Your task to perform on an android device: Empty the shopping cart on newegg.com. Add macbook pro to the cart on newegg.com Image 0: 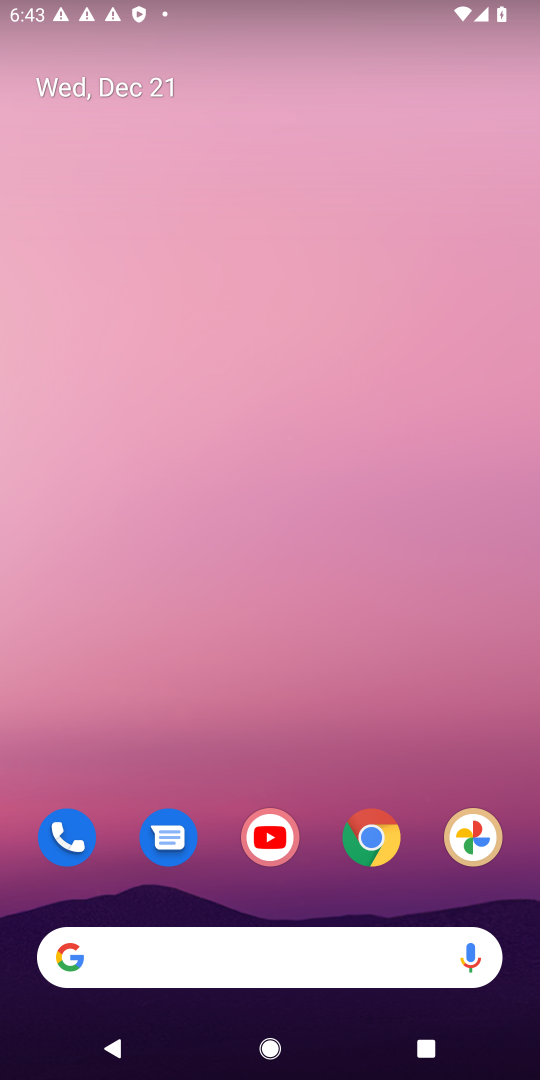
Step 0: drag from (276, 651) to (273, 232)
Your task to perform on an android device: Empty the shopping cart on newegg.com. Add macbook pro to the cart on newegg.com Image 1: 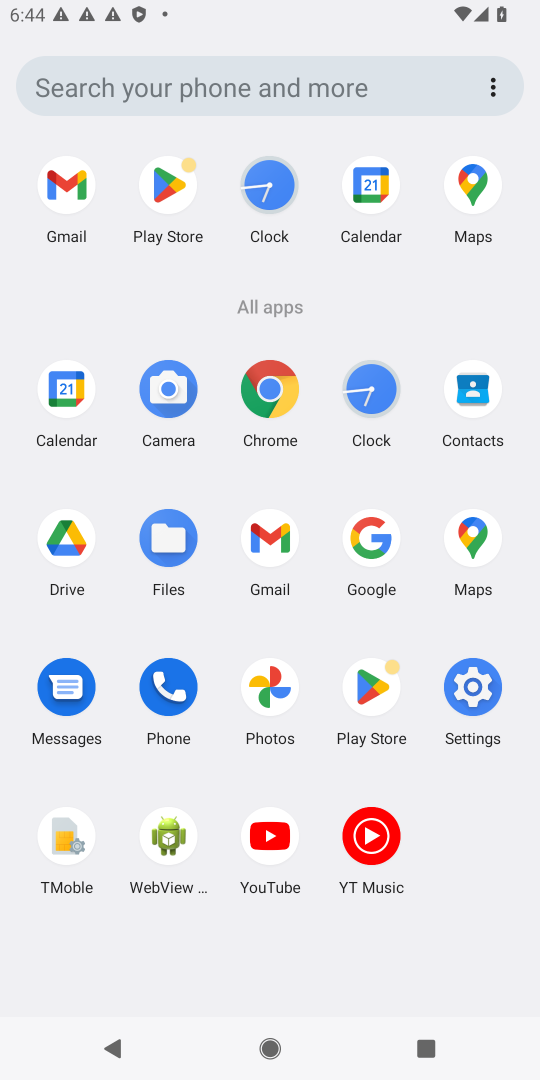
Step 1: click (385, 516)
Your task to perform on an android device: Empty the shopping cart on newegg.com. Add macbook pro to the cart on newegg.com Image 2: 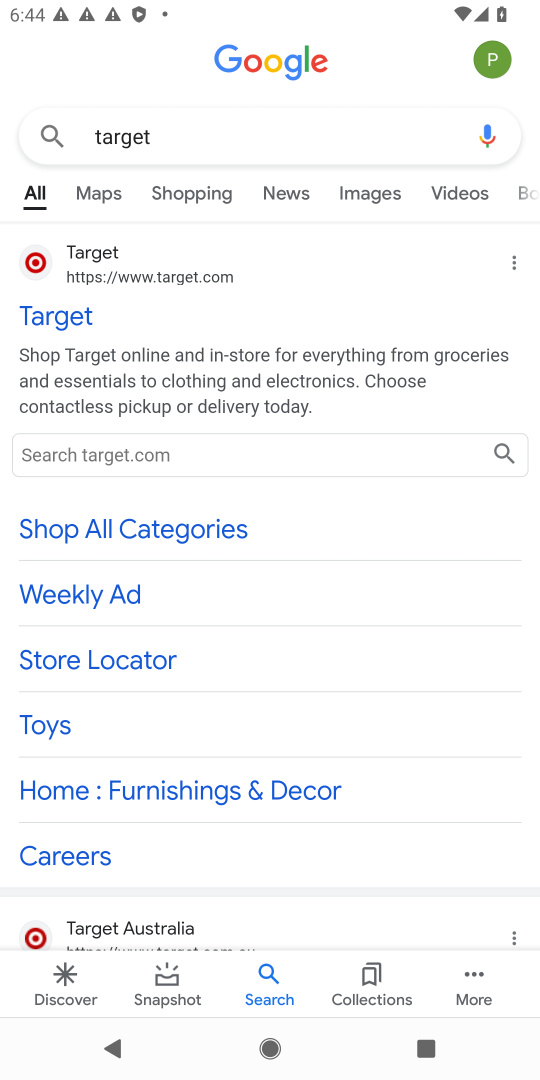
Step 2: click (101, 139)
Your task to perform on an android device: Empty the shopping cart on newegg.com. Add macbook pro to the cart on newegg.com Image 3: 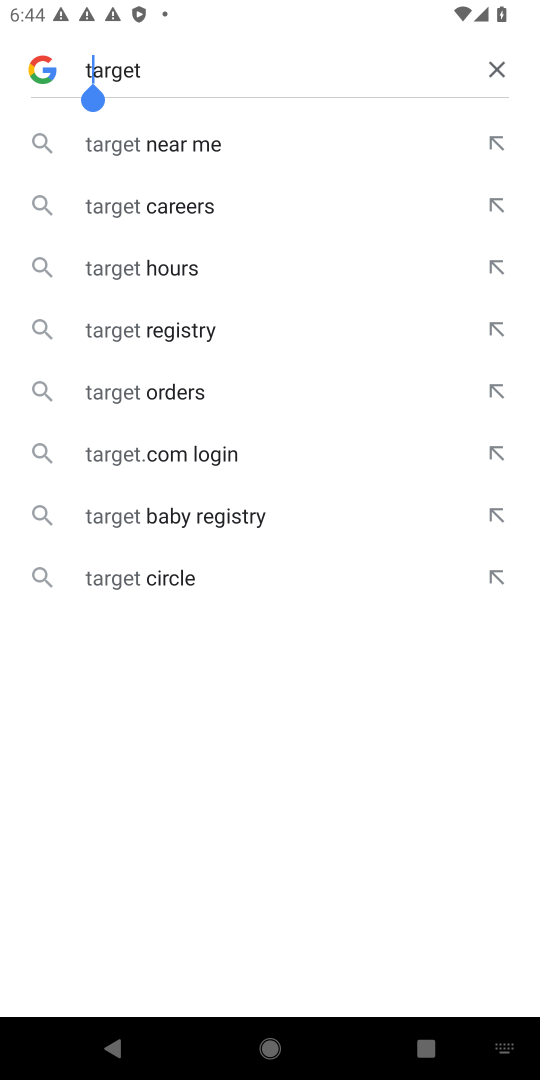
Step 3: click (502, 62)
Your task to perform on an android device: Empty the shopping cart on newegg.com. Add macbook pro to the cart on newegg.com Image 4: 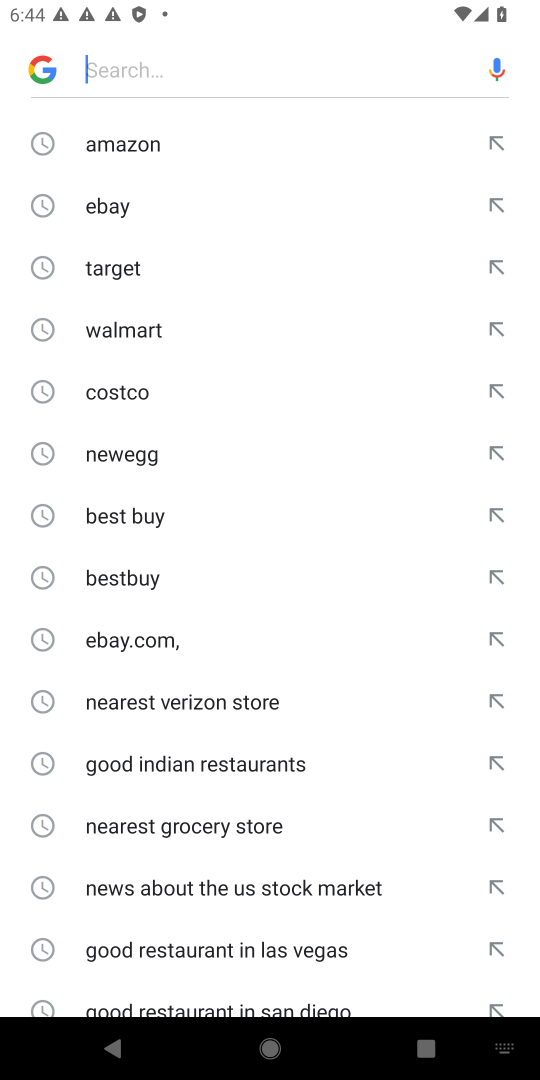
Step 4: type "newegg.com"
Your task to perform on an android device: Empty the shopping cart on newegg.com. Add macbook pro to the cart on newegg.com Image 5: 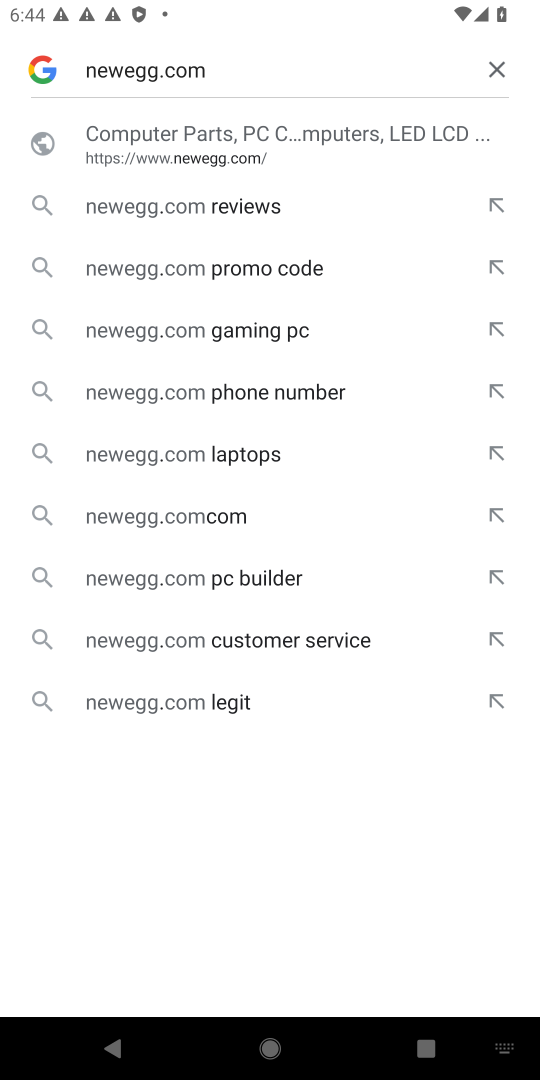
Step 5: click (137, 135)
Your task to perform on an android device: Empty the shopping cart on newegg.com. Add macbook pro to the cart on newegg.com Image 6: 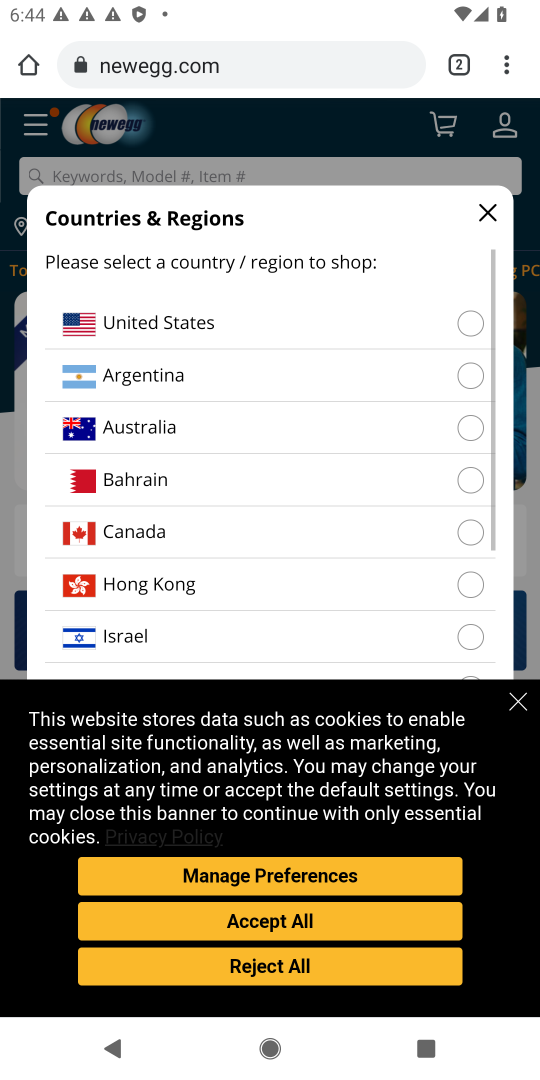
Step 6: click (484, 211)
Your task to perform on an android device: Empty the shopping cart on newegg.com. Add macbook pro to the cart on newegg.com Image 7: 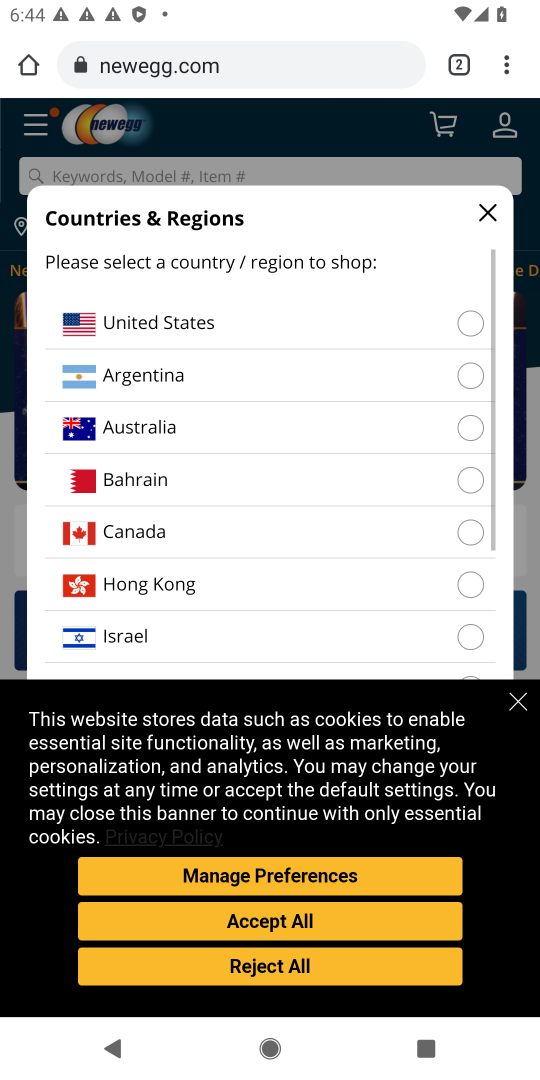
Step 7: click (492, 219)
Your task to perform on an android device: Empty the shopping cart on newegg.com. Add macbook pro to the cart on newegg.com Image 8: 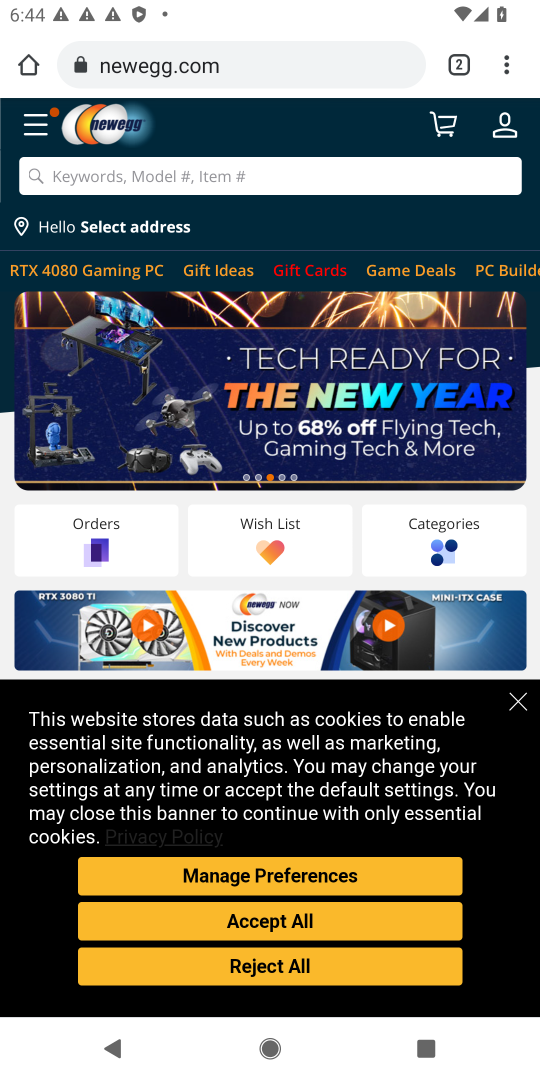
Step 8: click (74, 171)
Your task to perform on an android device: Empty the shopping cart on newegg.com. Add macbook pro to the cart on newegg.com Image 9: 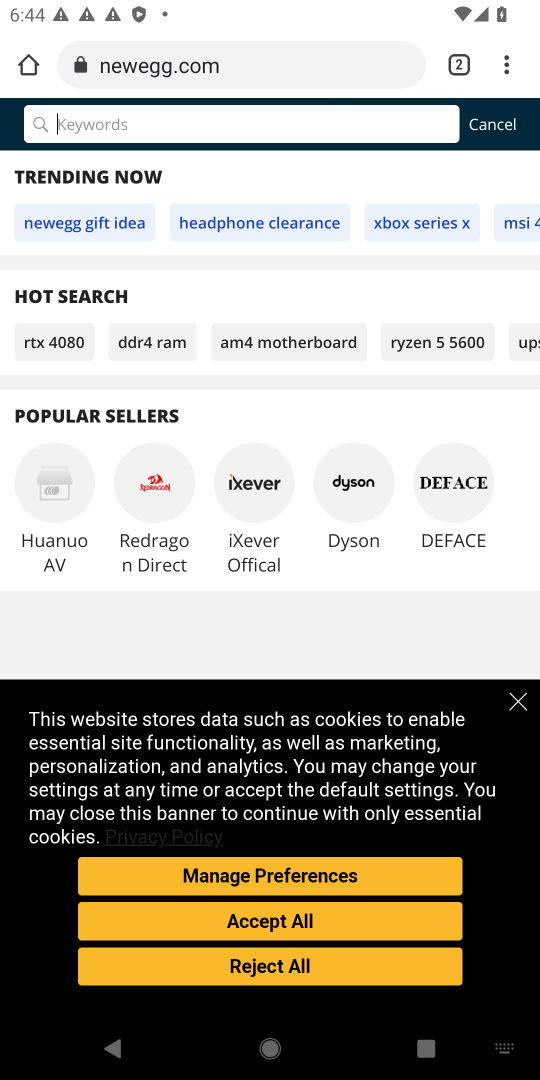
Step 9: type "macbook pro"
Your task to perform on an android device: Empty the shopping cart on newegg.com. Add macbook pro to the cart on newegg.com Image 10: 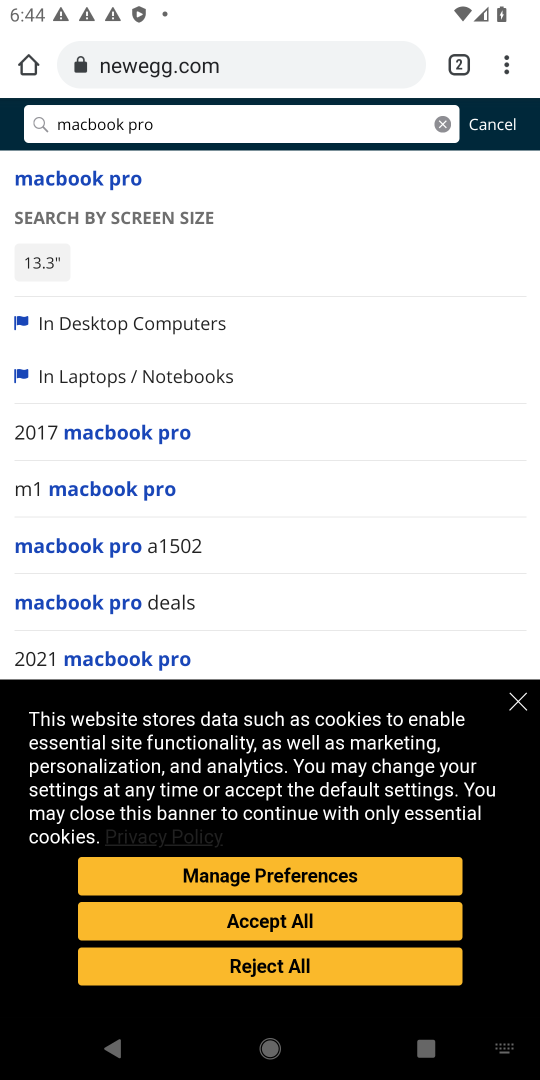
Step 10: click (75, 173)
Your task to perform on an android device: Empty the shopping cart on newegg.com. Add macbook pro to the cart on newegg.com Image 11: 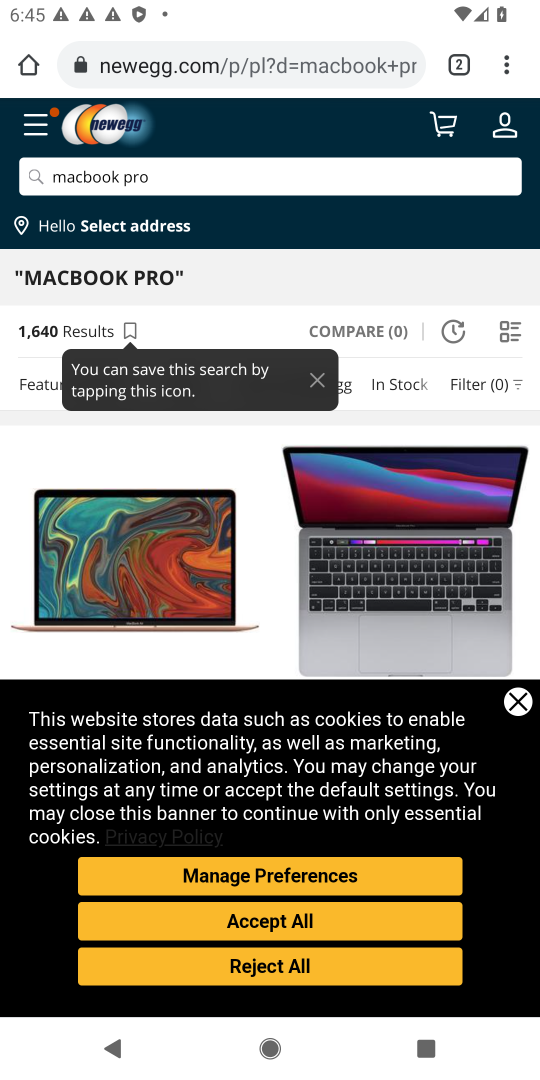
Step 11: click (513, 701)
Your task to perform on an android device: Empty the shopping cart on newegg.com. Add macbook pro to the cart on newegg.com Image 12: 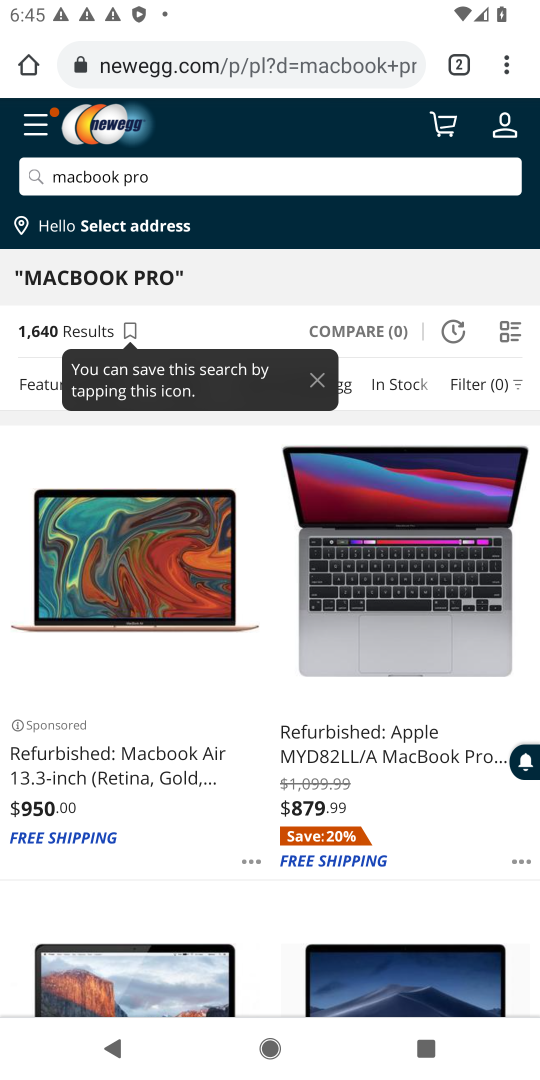
Step 12: click (152, 580)
Your task to perform on an android device: Empty the shopping cart on newegg.com. Add macbook pro to the cart on newegg.com Image 13: 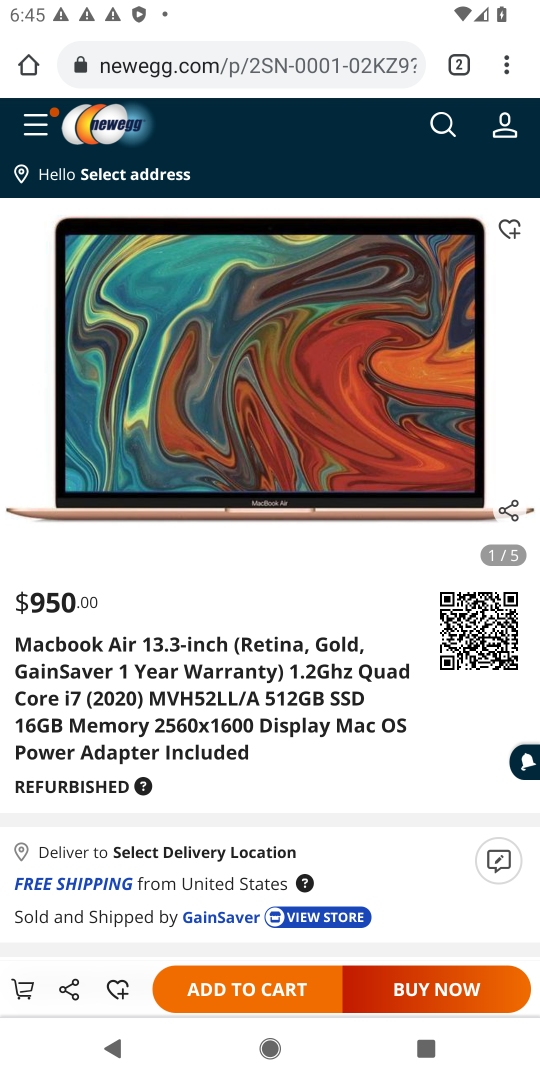
Step 13: click (241, 984)
Your task to perform on an android device: Empty the shopping cart on newegg.com. Add macbook pro to the cart on newegg.com Image 14: 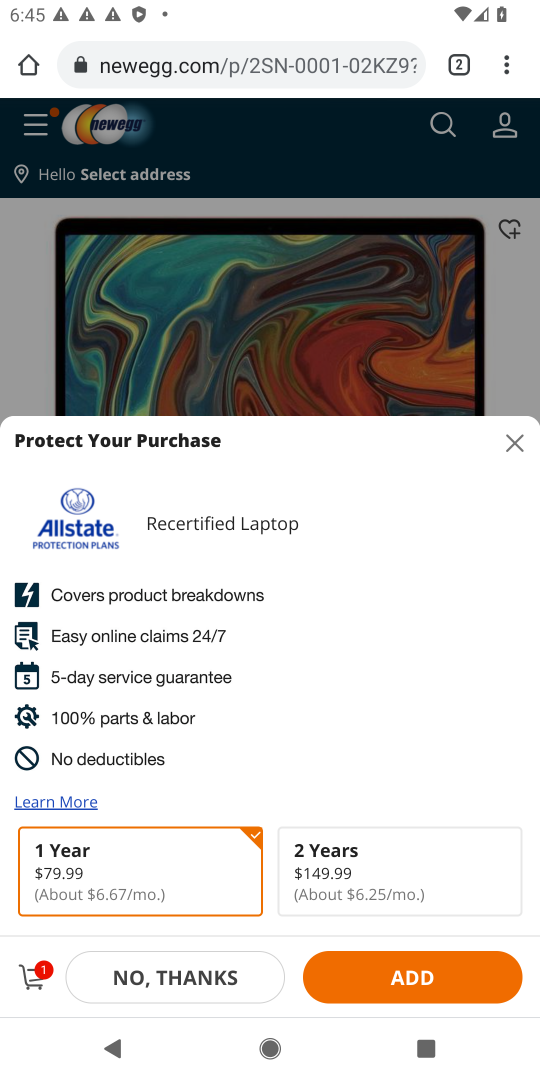
Step 14: task complete